Your task to perform on an android device: Go to Yahoo.com Image 0: 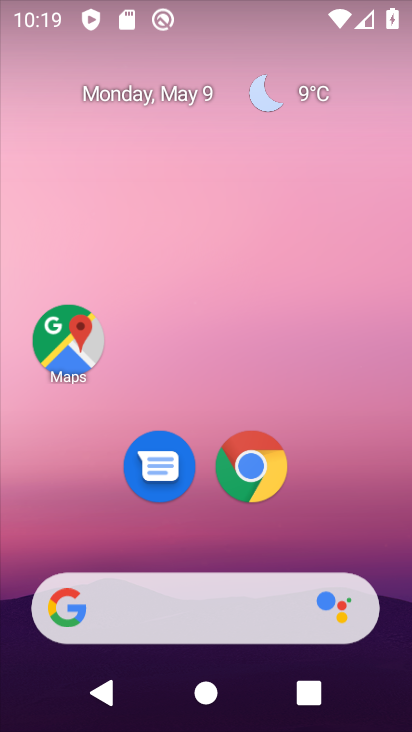
Step 0: click (265, 478)
Your task to perform on an android device: Go to Yahoo.com Image 1: 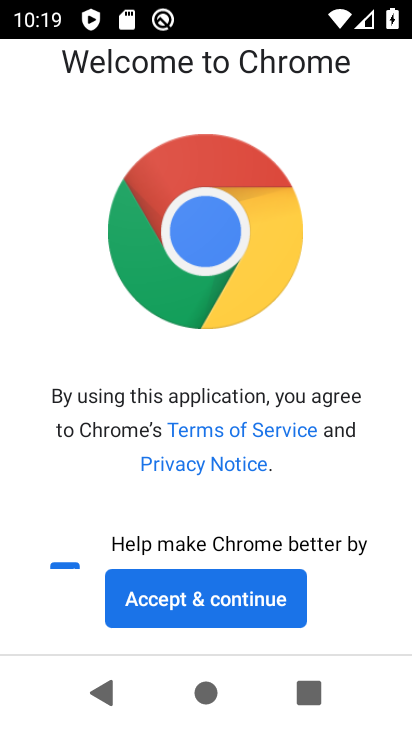
Step 1: click (218, 600)
Your task to perform on an android device: Go to Yahoo.com Image 2: 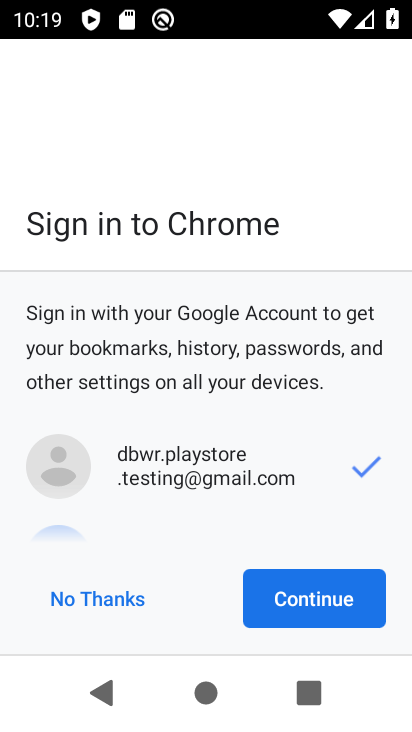
Step 2: click (285, 592)
Your task to perform on an android device: Go to Yahoo.com Image 3: 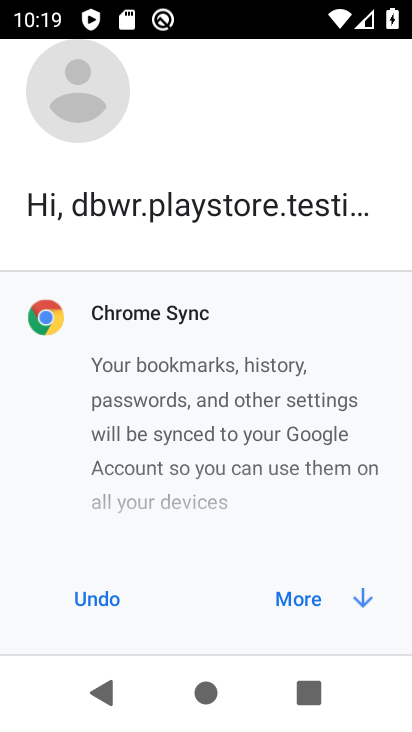
Step 3: click (310, 605)
Your task to perform on an android device: Go to Yahoo.com Image 4: 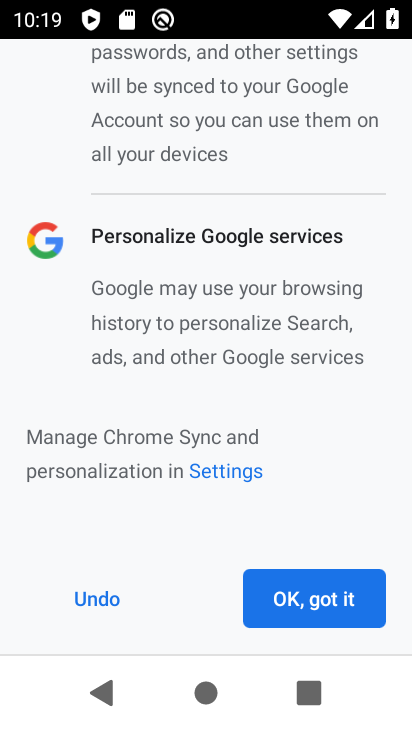
Step 4: click (307, 598)
Your task to perform on an android device: Go to Yahoo.com Image 5: 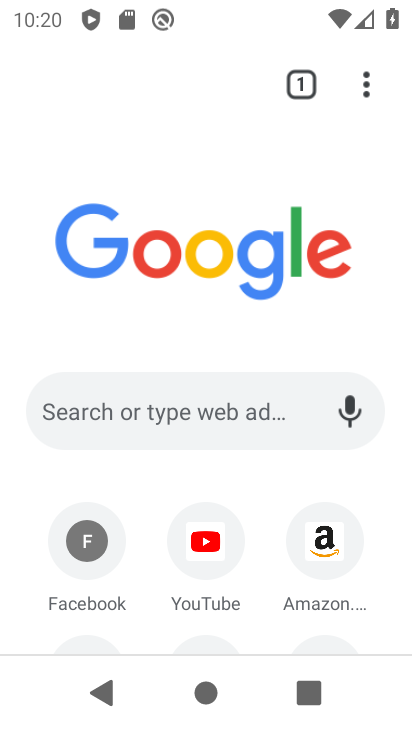
Step 5: drag from (282, 491) to (252, 180)
Your task to perform on an android device: Go to Yahoo.com Image 6: 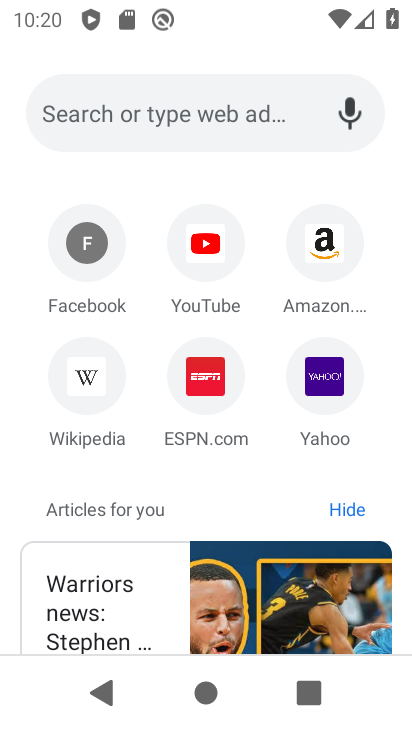
Step 6: click (331, 391)
Your task to perform on an android device: Go to Yahoo.com Image 7: 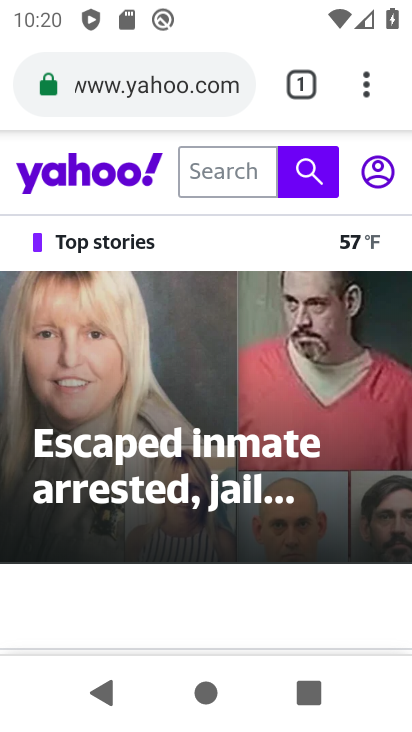
Step 7: task complete